Your task to perform on an android device: open app "TextNow: Call + Text Unlimited" Image 0: 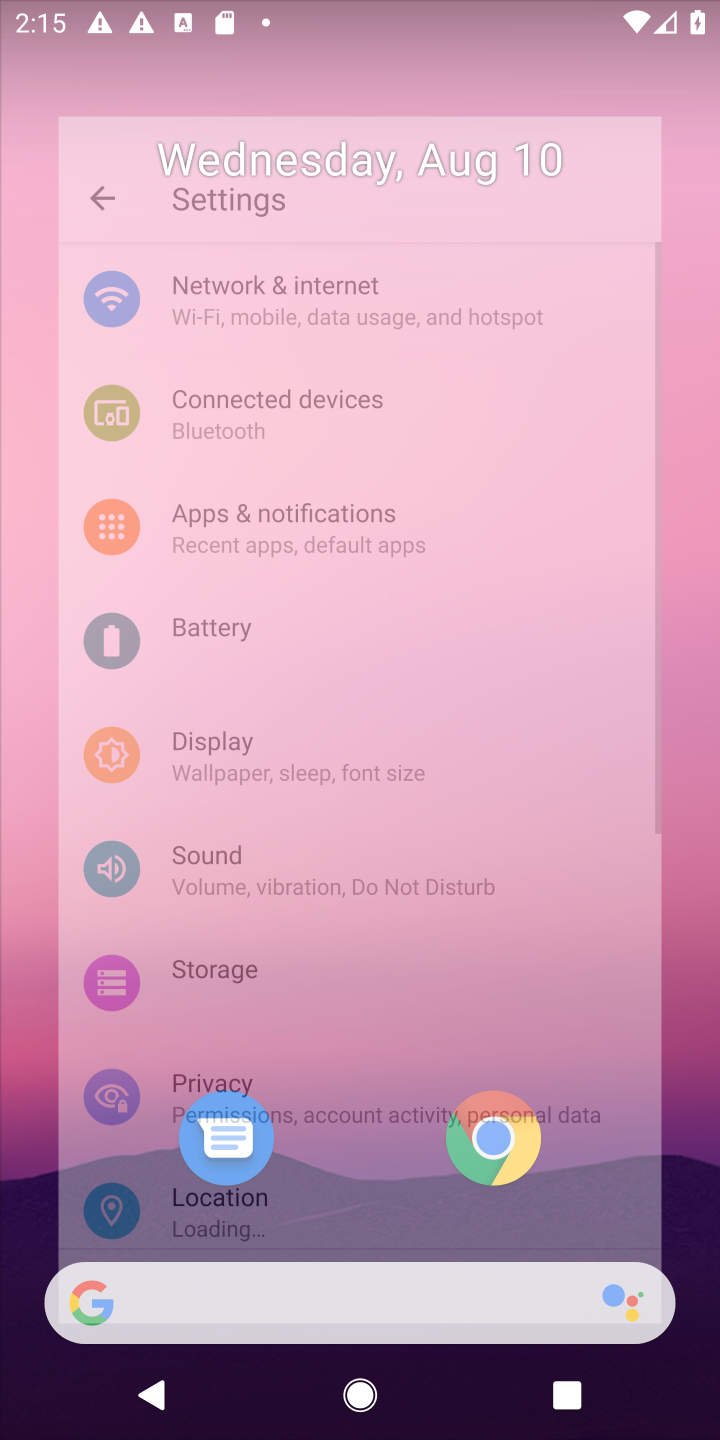
Step 0: press home button
Your task to perform on an android device: open app "TextNow: Call + Text Unlimited" Image 1: 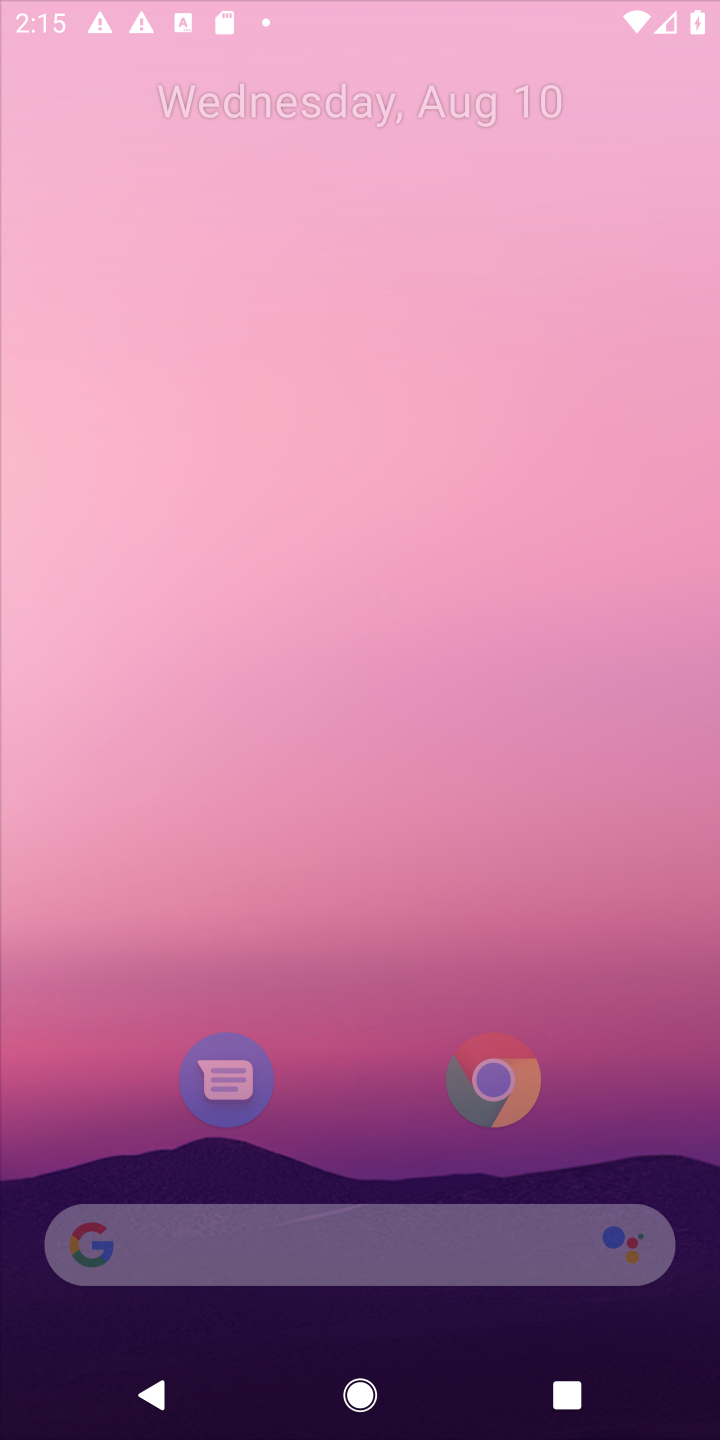
Step 1: press home button
Your task to perform on an android device: open app "TextNow: Call + Text Unlimited" Image 2: 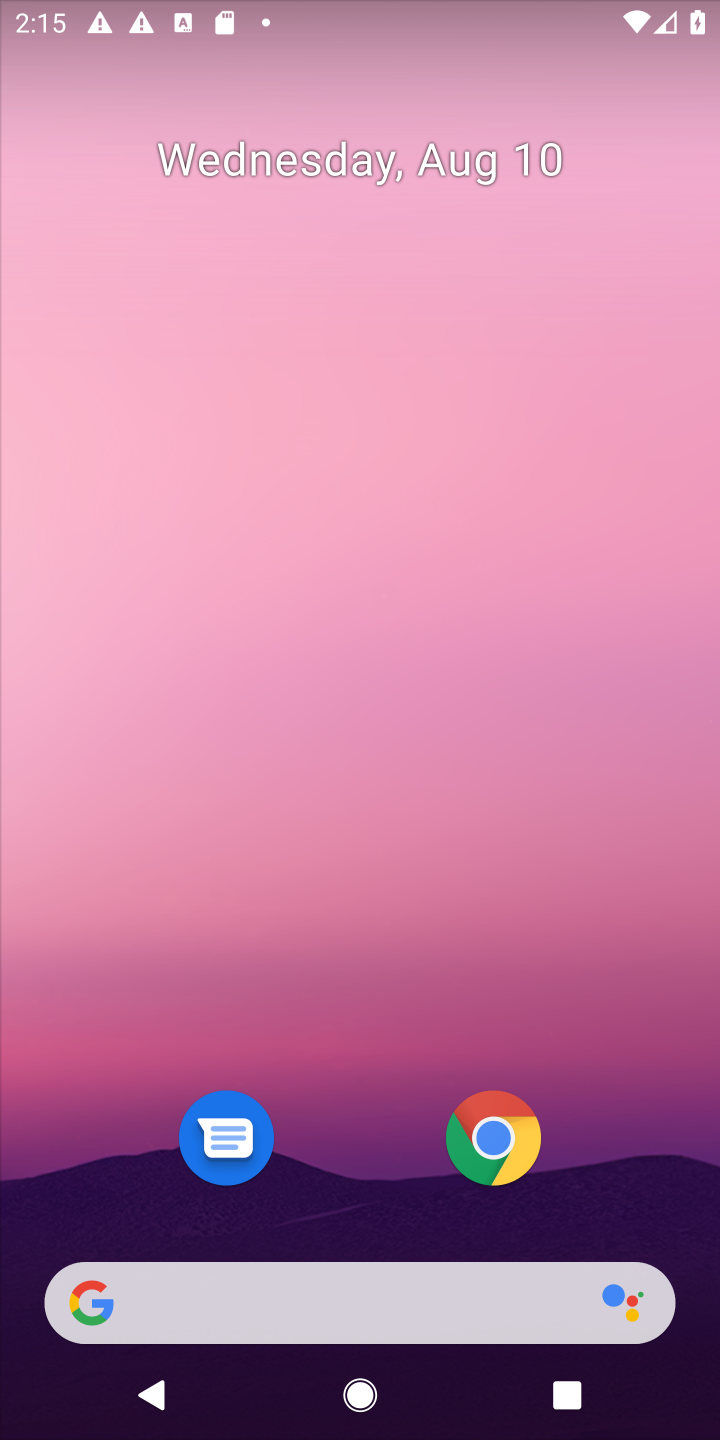
Step 2: drag from (608, 1186) to (658, 84)
Your task to perform on an android device: open app "TextNow: Call + Text Unlimited" Image 3: 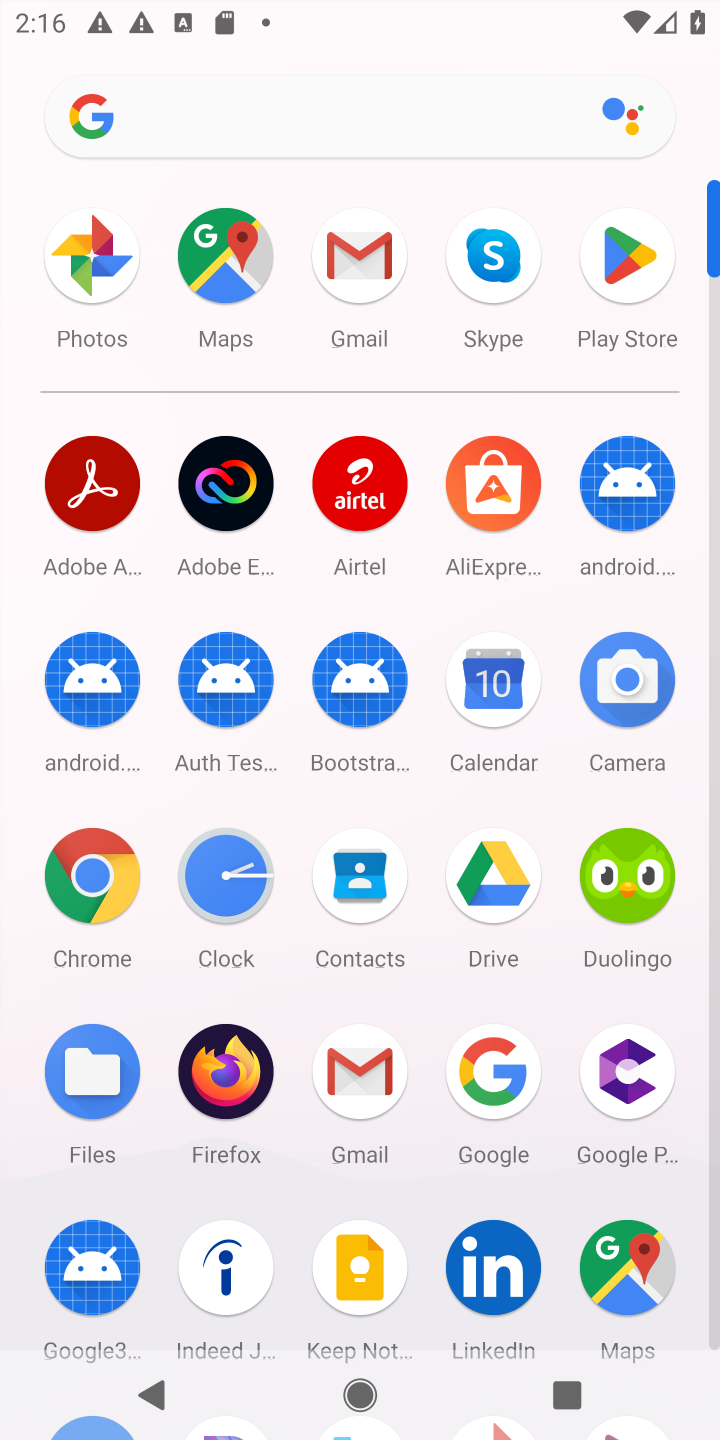
Step 3: click (629, 252)
Your task to perform on an android device: open app "TextNow: Call + Text Unlimited" Image 4: 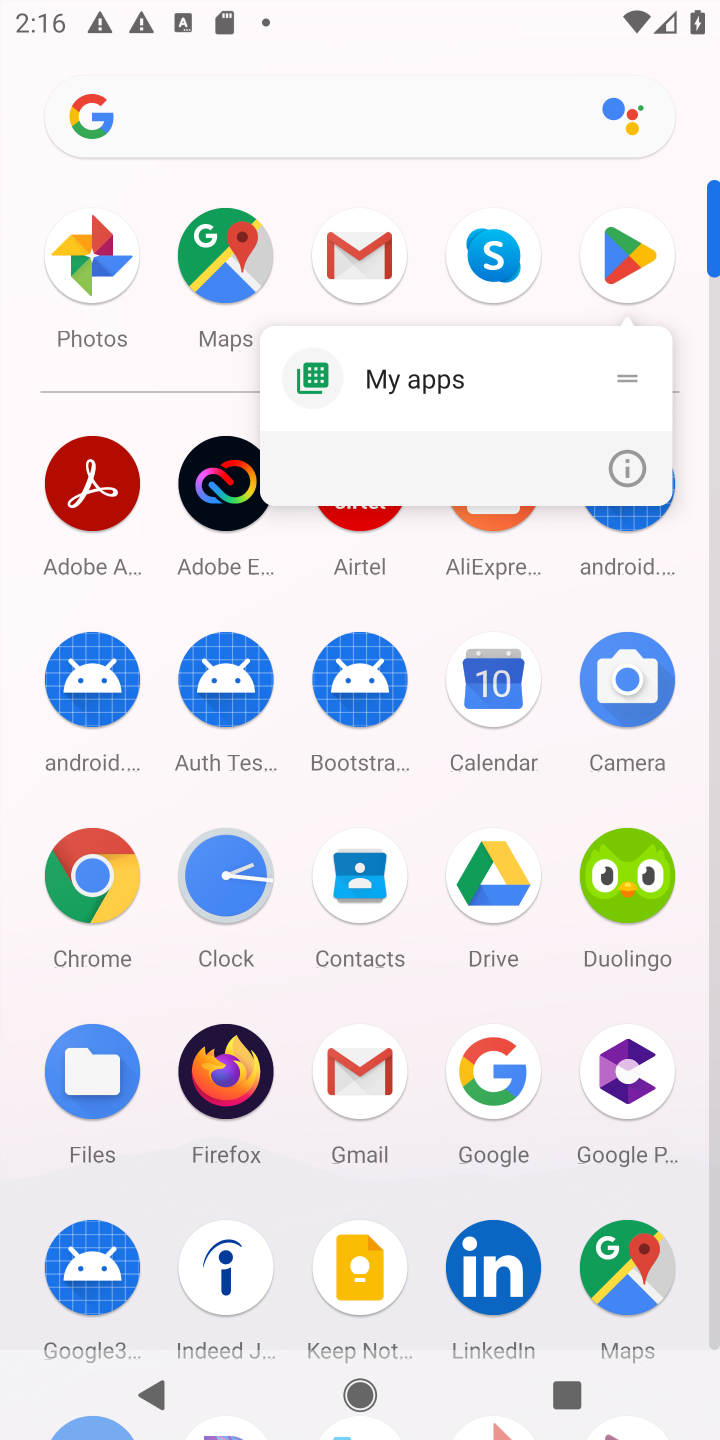
Step 4: click (646, 258)
Your task to perform on an android device: open app "TextNow: Call + Text Unlimited" Image 5: 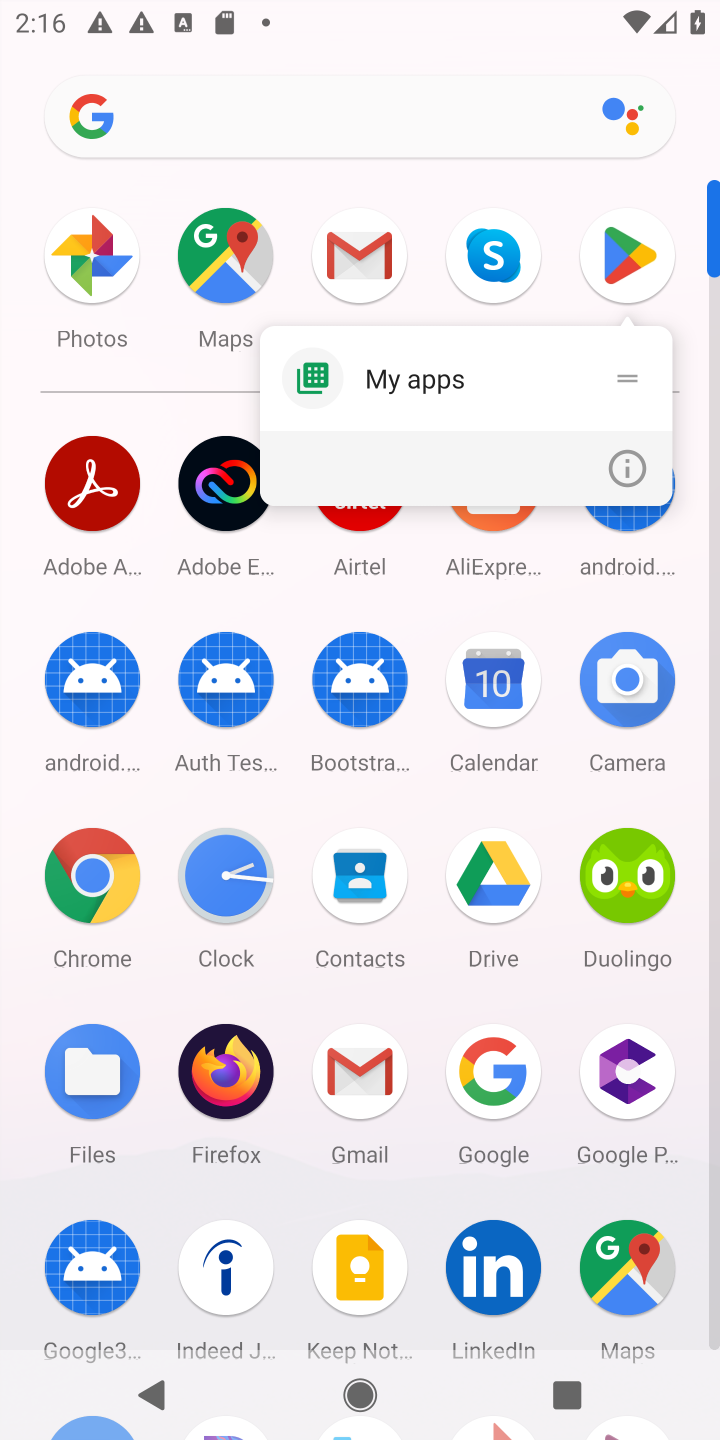
Step 5: click (642, 249)
Your task to perform on an android device: open app "TextNow: Call + Text Unlimited" Image 6: 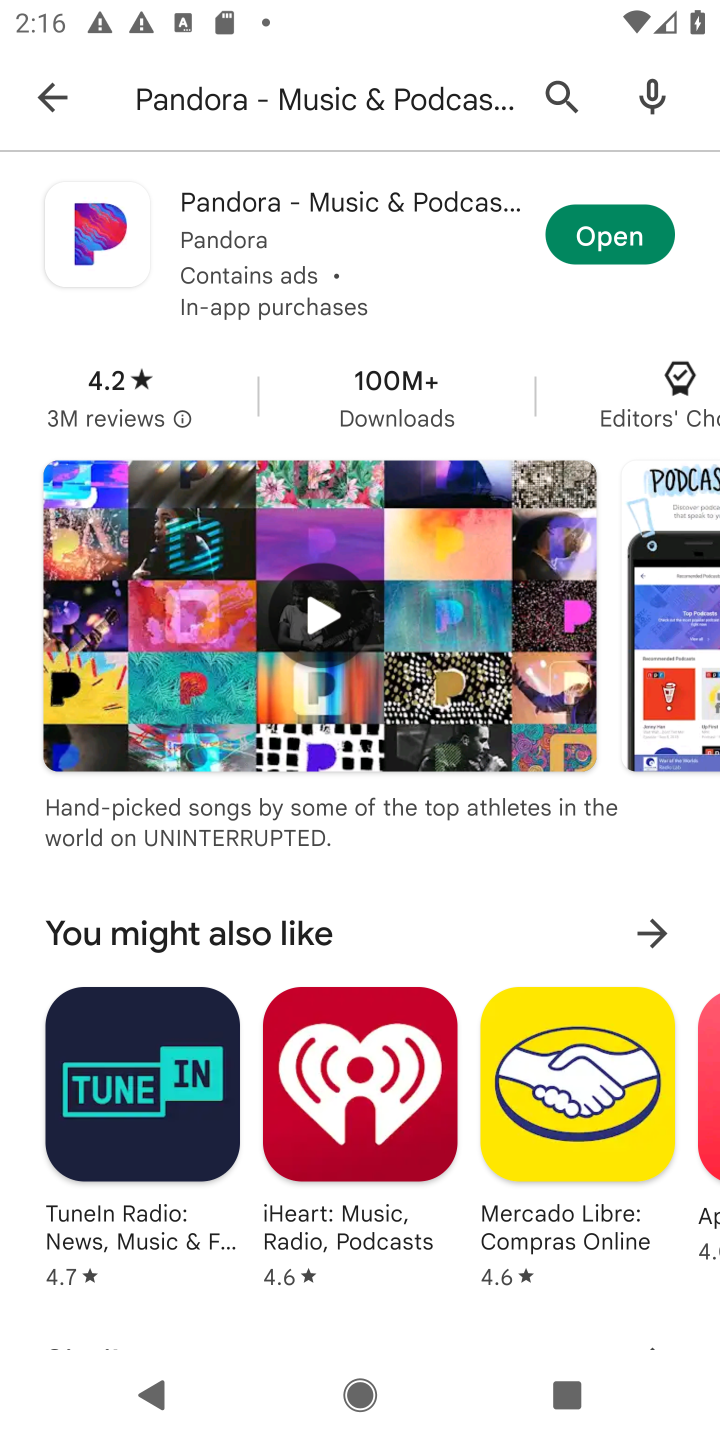
Step 6: click (559, 87)
Your task to perform on an android device: open app "TextNow: Call + Text Unlimited" Image 7: 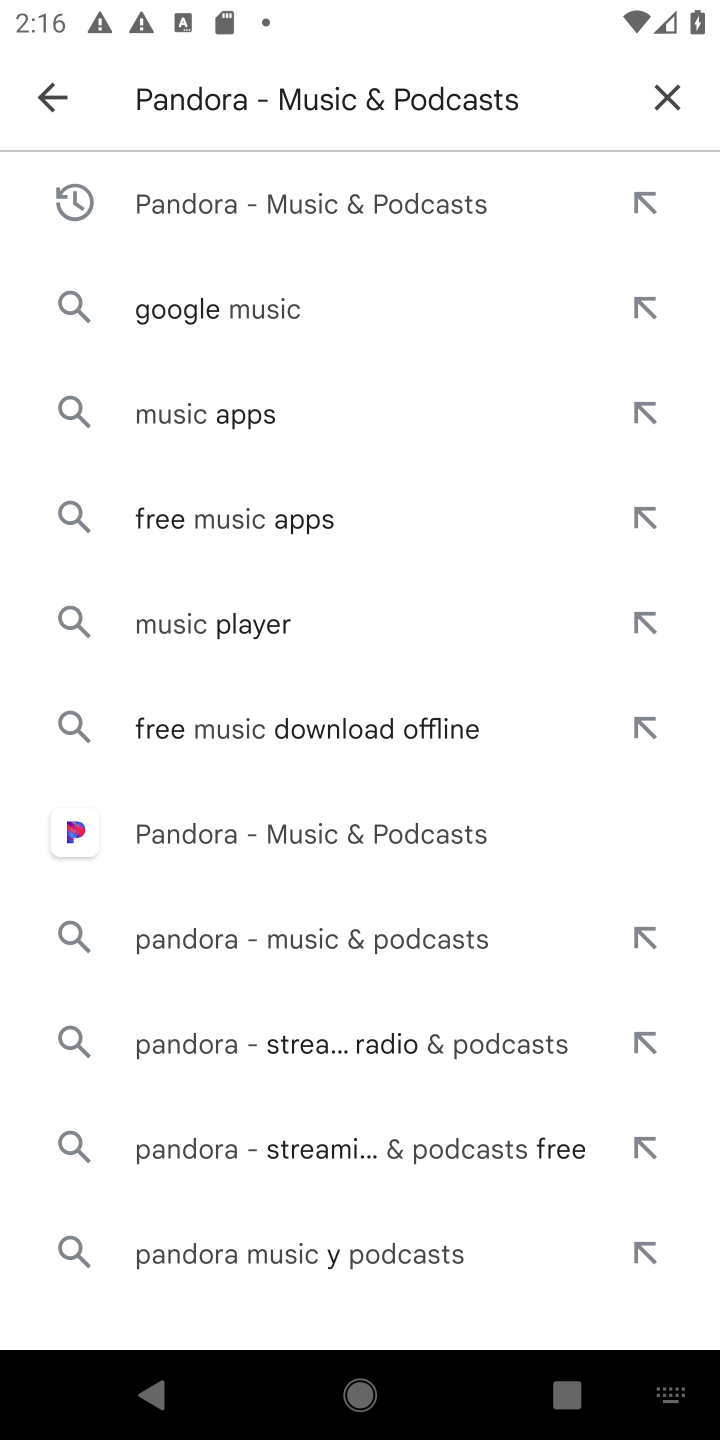
Step 7: click (657, 102)
Your task to perform on an android device: open app "TextNow: Call + Text Unlimited" Image 8: 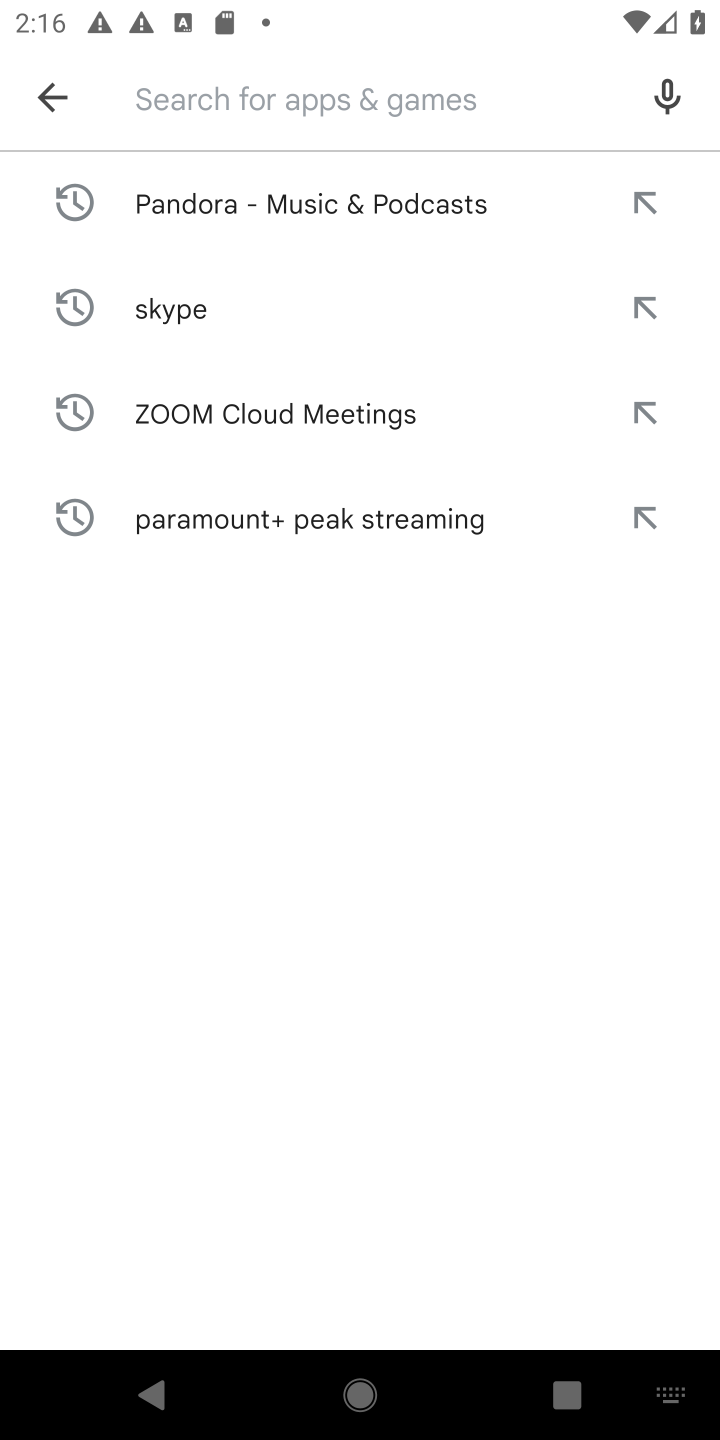
Step 8: type "TextNow: Call + Text Unlimited"
Your task to perform on an android device: open app "TextNow: Call + Text Unlimited" Image 9: 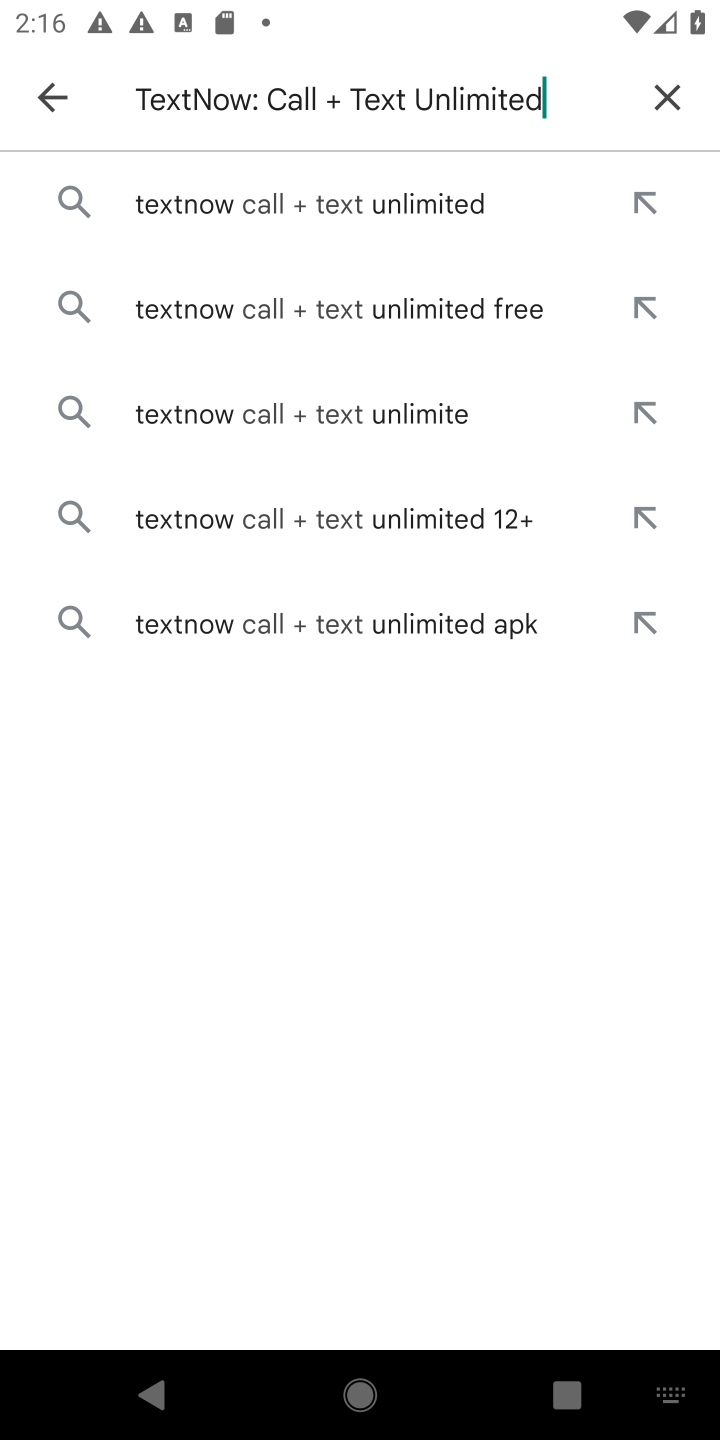
Step 9: press enter
Your task to perform on an android device: open app "TextNow: Call + Text Unlimited" Image 10: 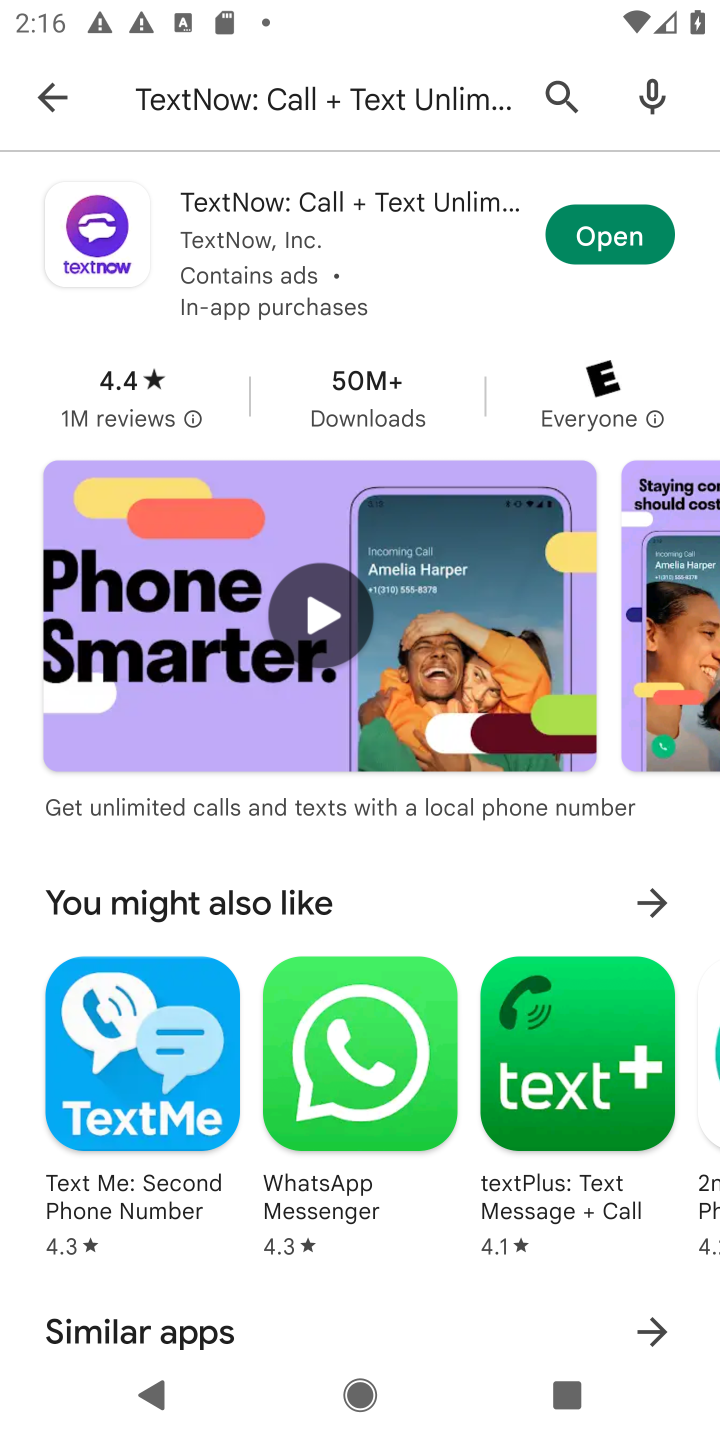
Step 10: click (588, 229)
Your task to perform on an android device: open app "TextNow: Call + Text Unlimited" Image 11: 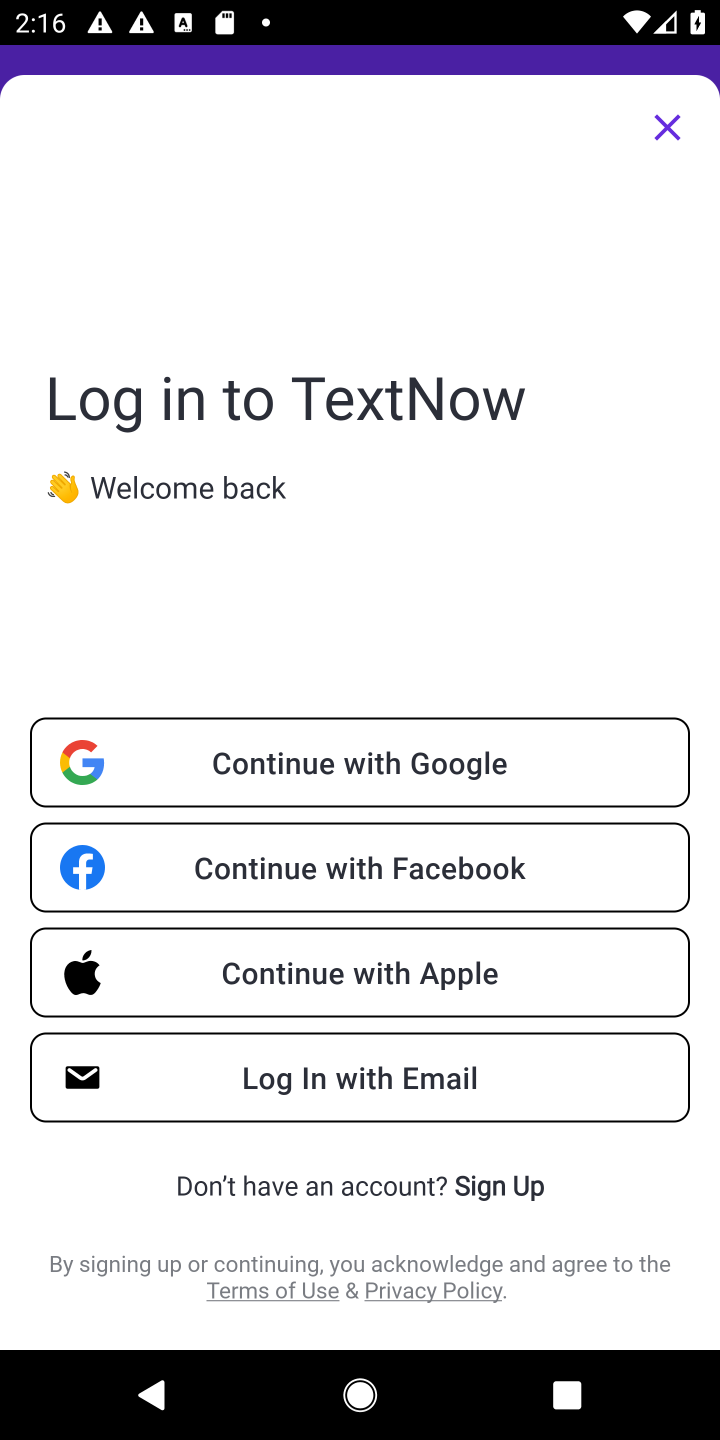
Step 11: task complete